Your task to perform on an android device: open app "Duolingo: language lessons" (install if not already installed) and enter user name: "omens@gmail.com" and password: "casks" Image 0: 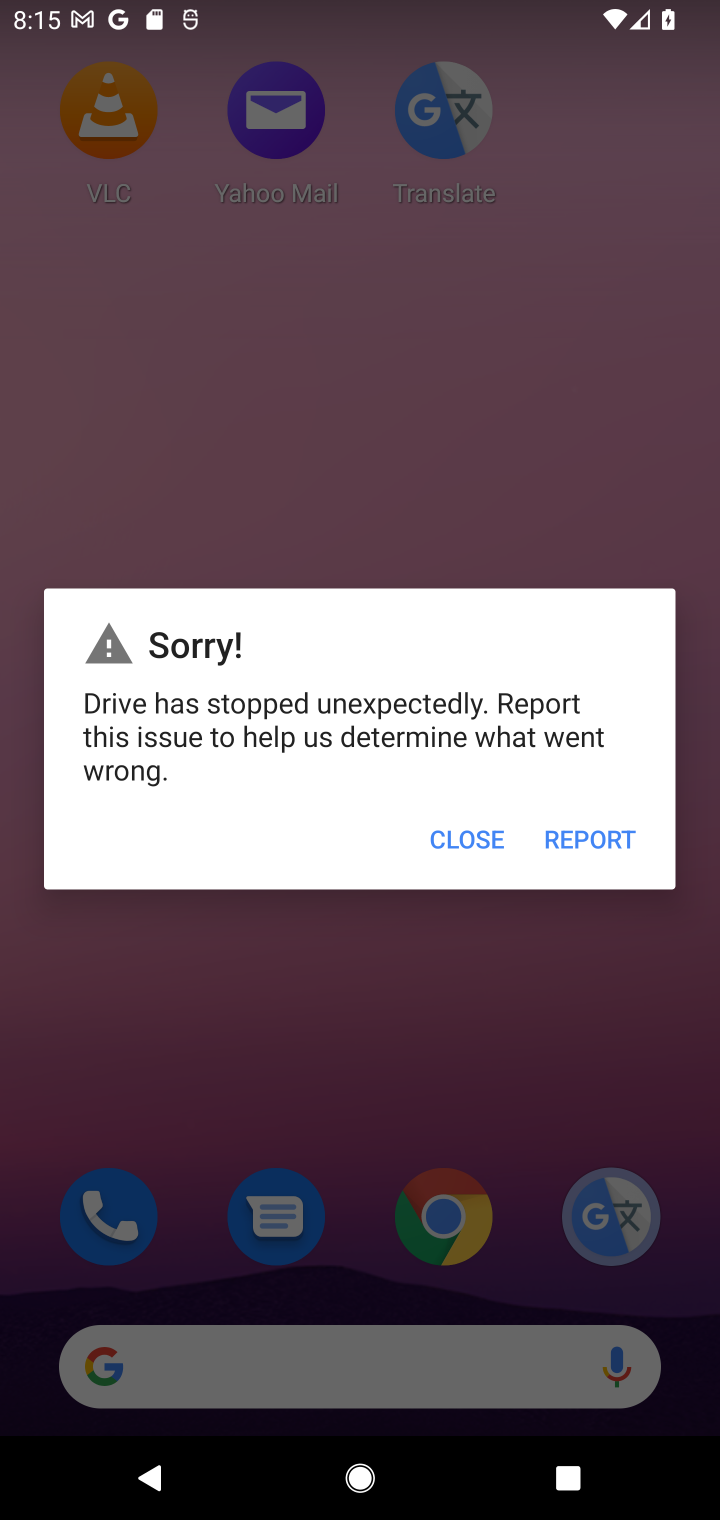
Step 0: press home button
Your task to perform on an android device: open app "Duolingo: language lessons" (install if not already installed) and enter user name: "omens@gmail.com" and password: "casks" Image 1: 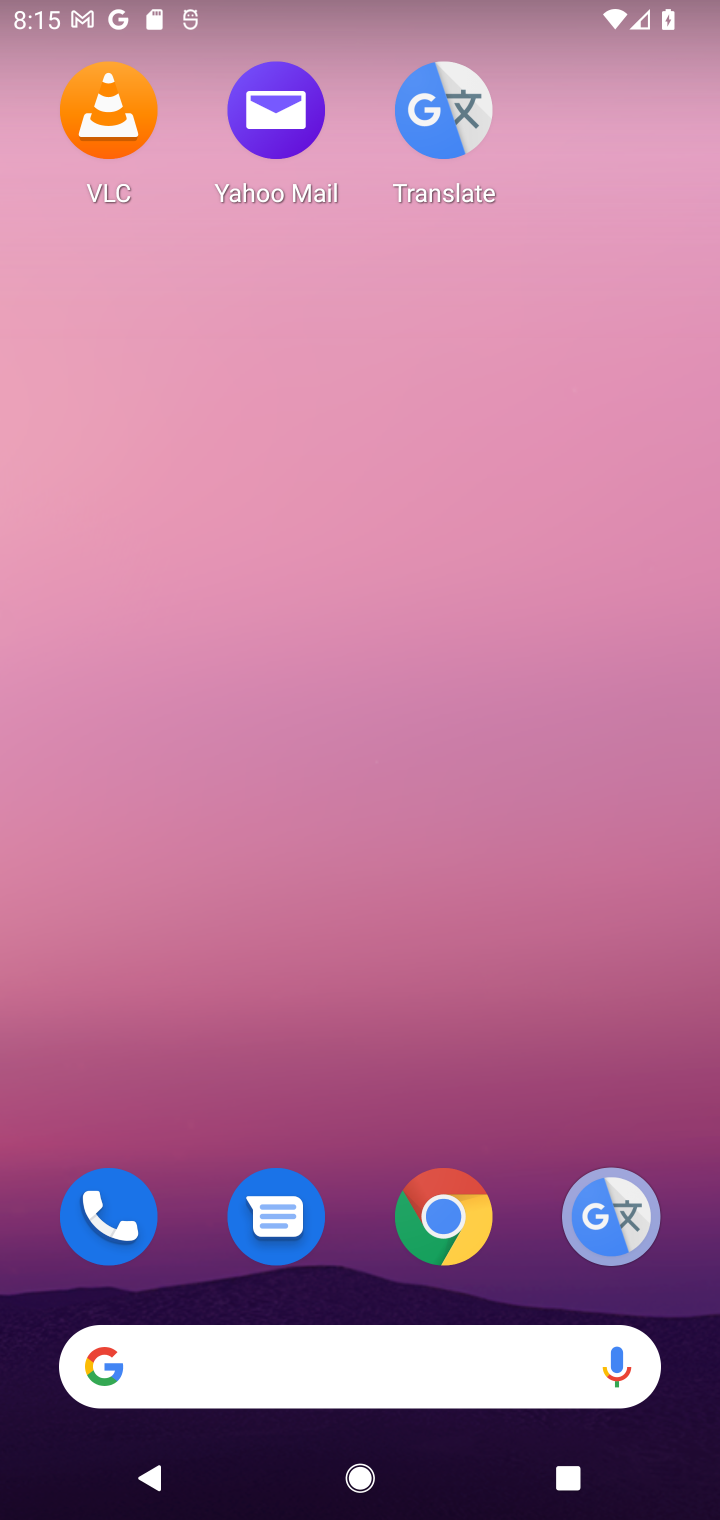
Step 1: press home button
Your task to perform on an android device: open app "Duolingo: language lessons" (install if not already installed) and enter user name: "omens@gmail.com" and password: "casks" Image 2: 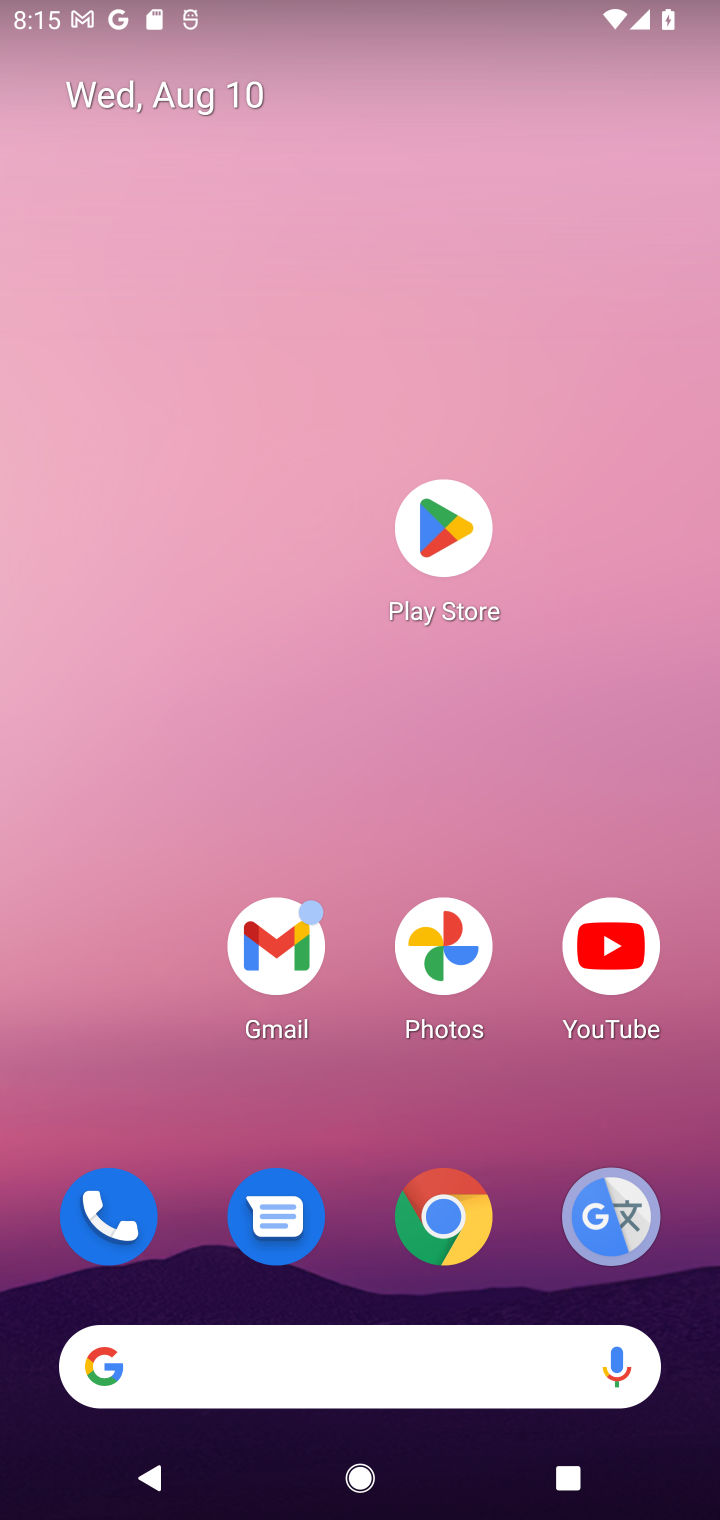
Step 2: click (442, 527)
Your task to perform on an android device: open app "Duolingo: language lessons" (install if not already installed) and enter user name: "omens@gmail.com" and password: "casks" Image 3: 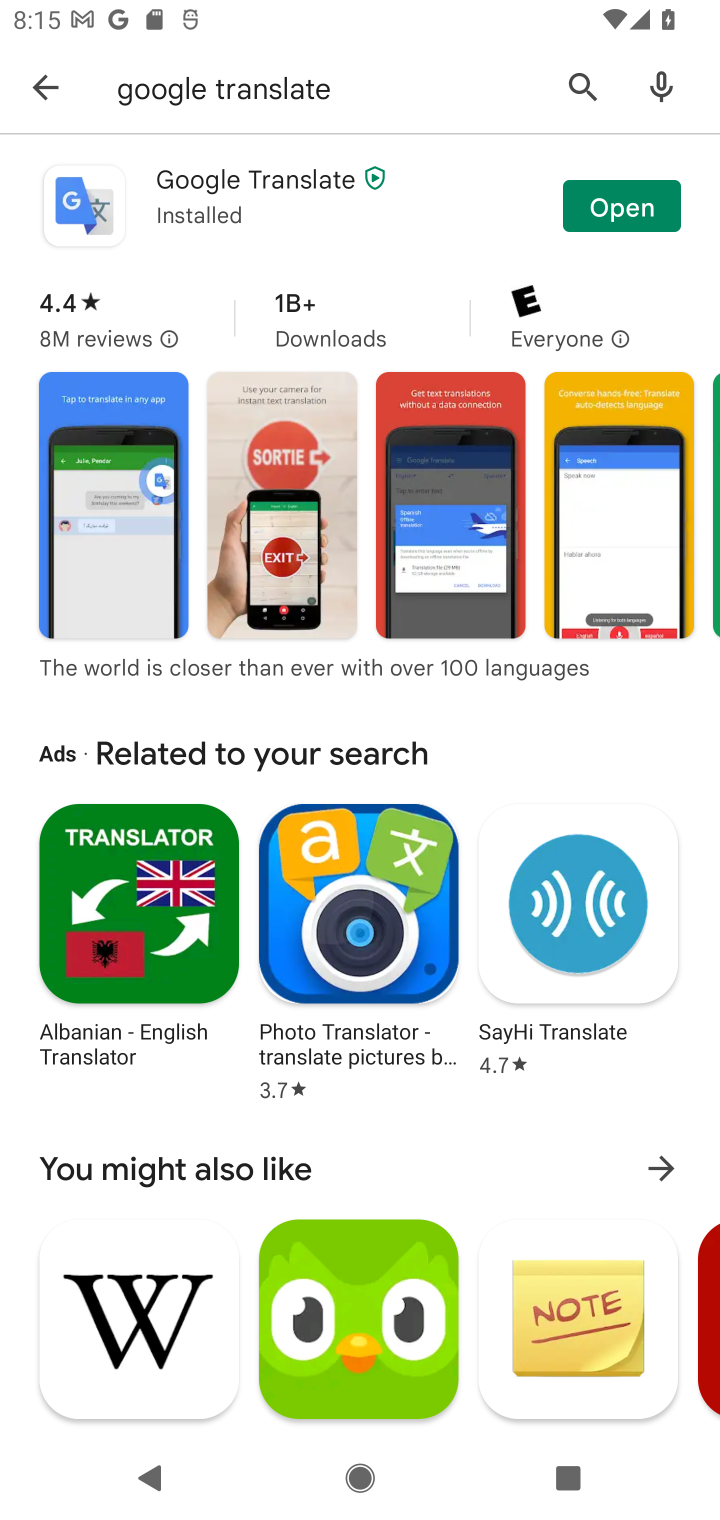
Step 3: click (574, 85)
Your task to perform on an android device: open app "Duolingo: language lessons" (install if not already installed) and enter user name: "omens@gmail.com" and password: "casks" Image 4: 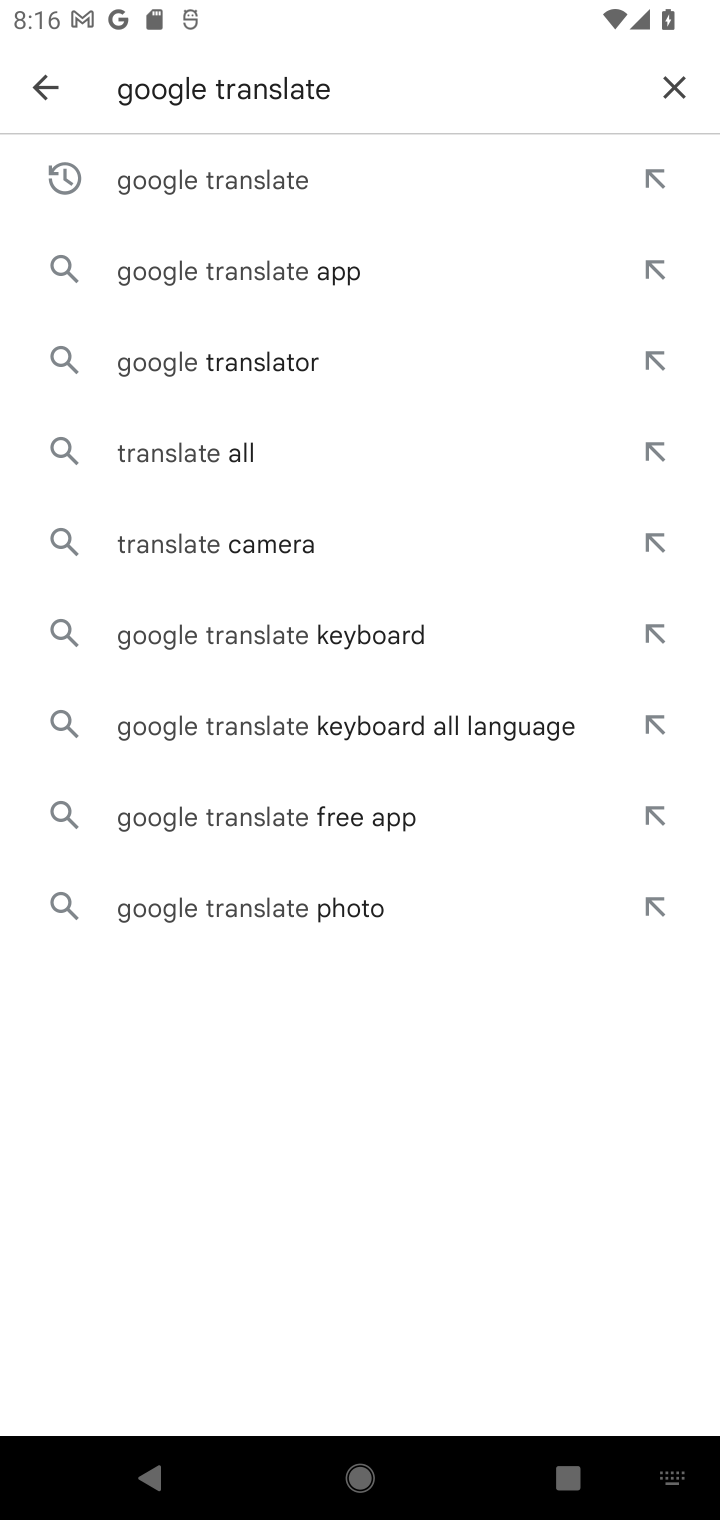
Step 4: click (675, 79)
Your task to perform on an android device: open app "Duolingo: language lessons" (install if not already installed) and enter user name: "omens@gmail.com" and password: "casks" Image 5: 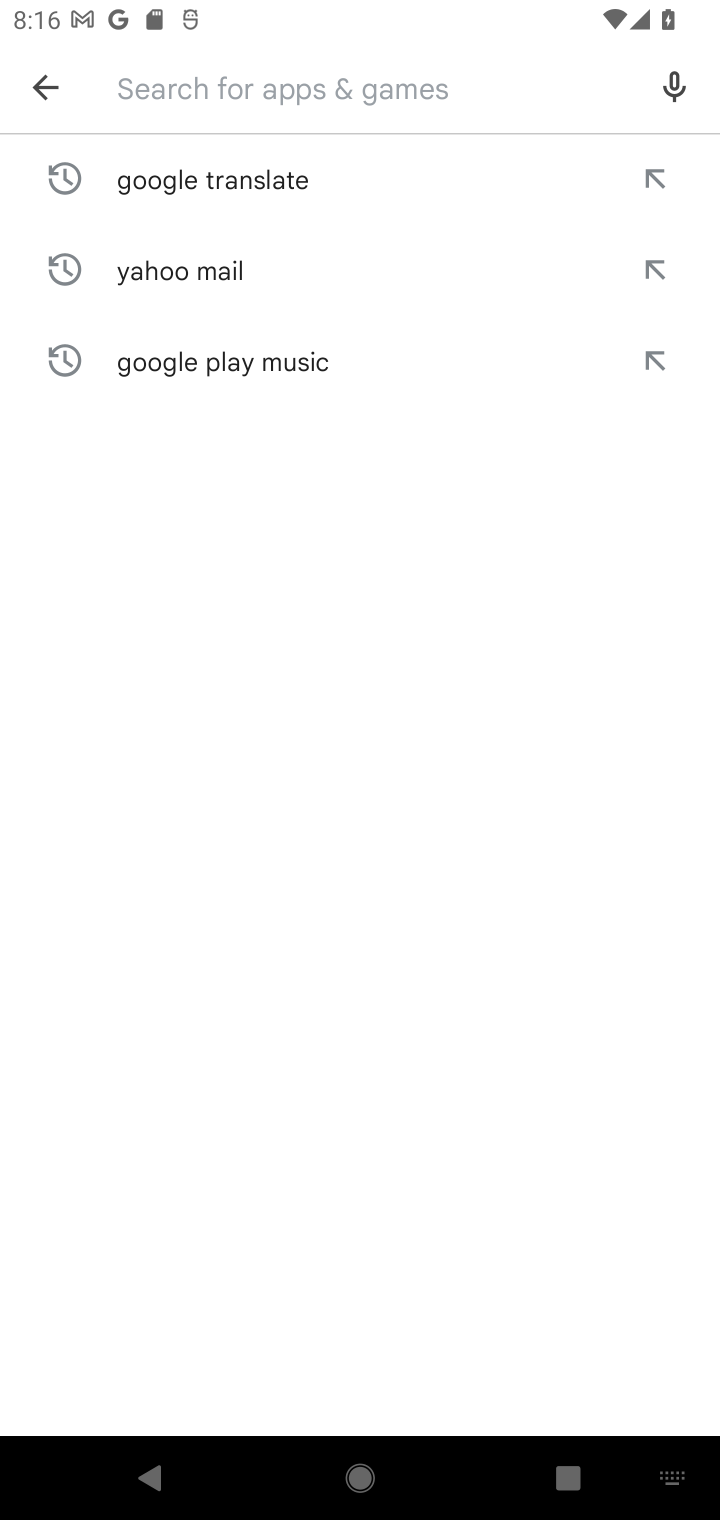
Step 5: type "Duolingo: language lessons"
Your task to perform on an android device: open app "Duolingo: language lessons" (install if not already installed) and enter user name: "omens@gmail.com" and password: "casks" Image 6: 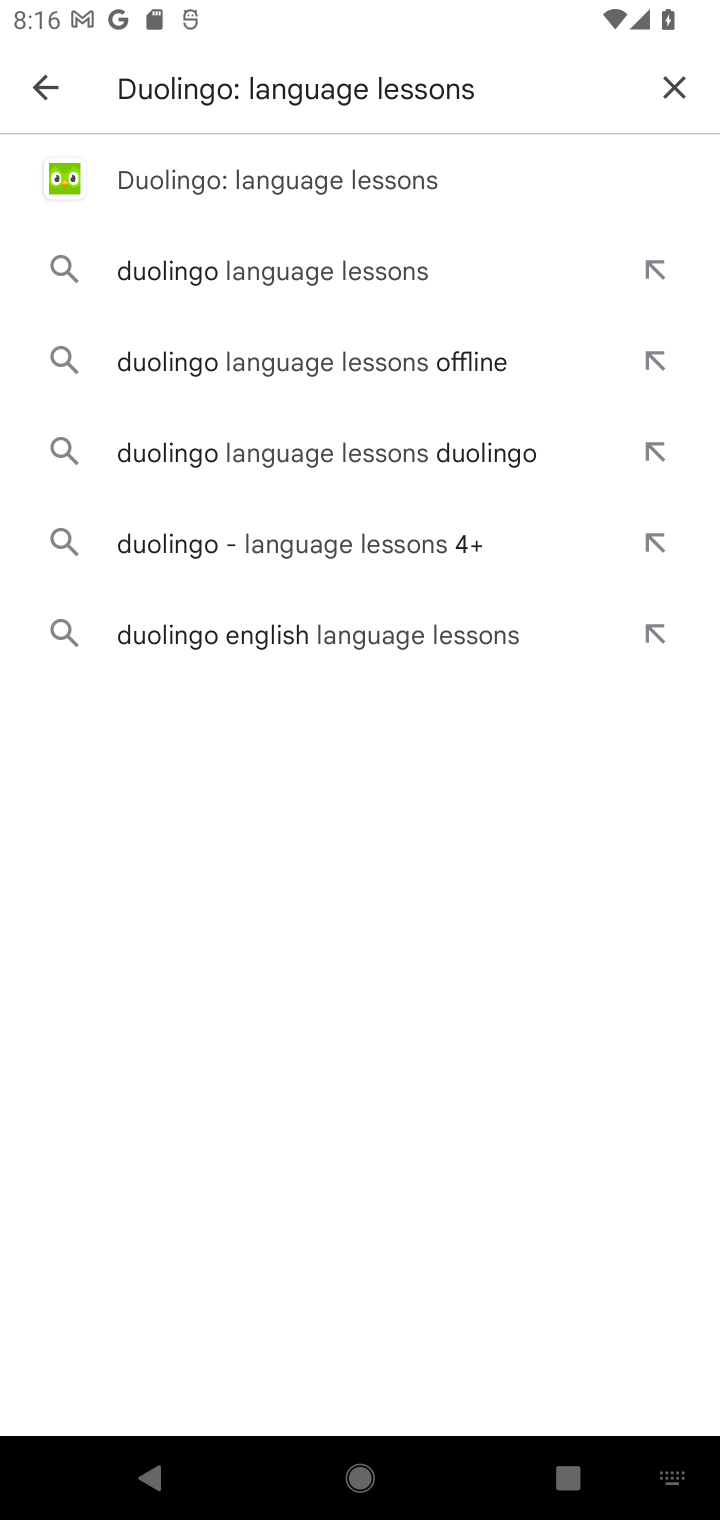
Step 6: click (373, 185)
Your task to perform on an android device: open app "Duolingo: language lessons" (install if not already installed) and enter user name: "omens@gmail.com" and password: "casks" Image 7: 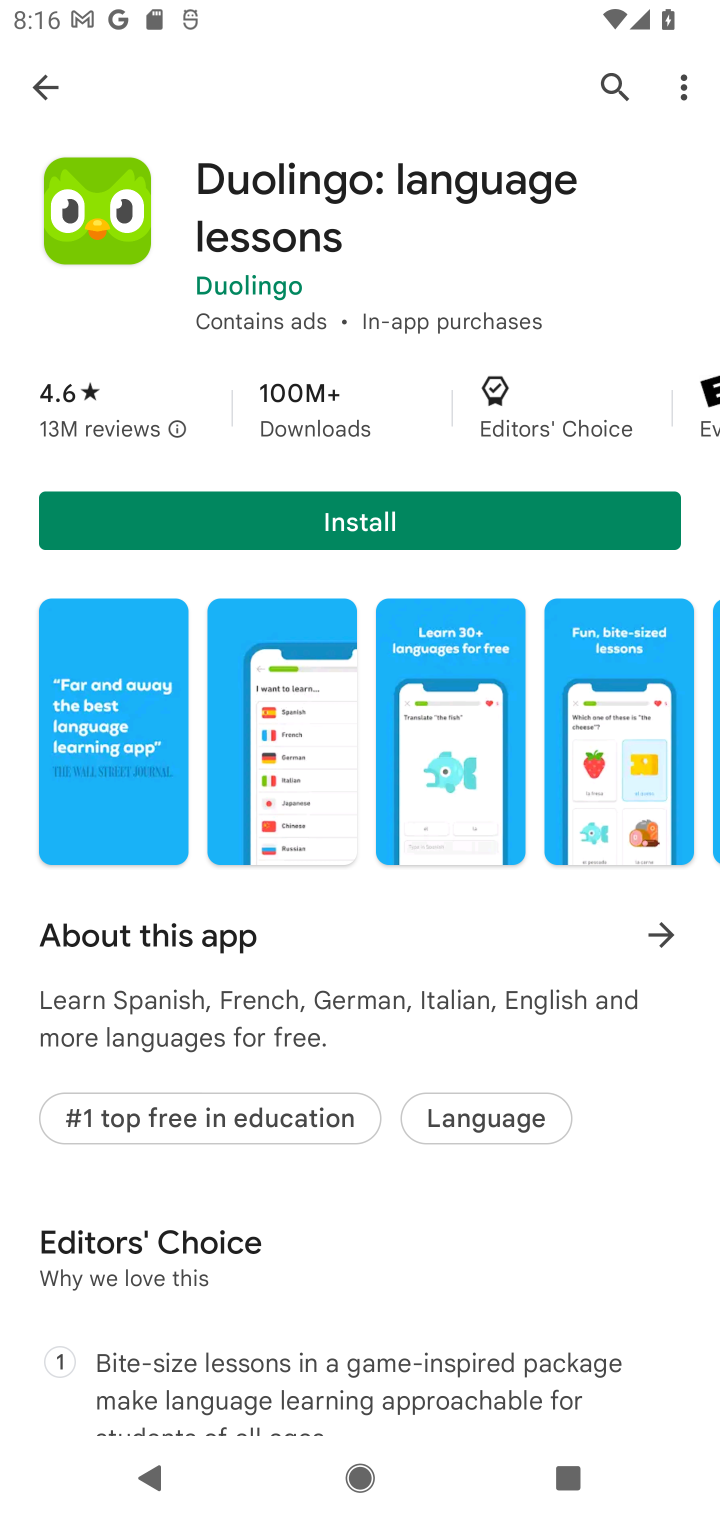
Step 7: click (350, 521)
Your task to perform on an android device: open app "Duolingo: language lessons" (install if not already installed) and enter user name: "omens@gmail.com" and password: "casks" Image 8: 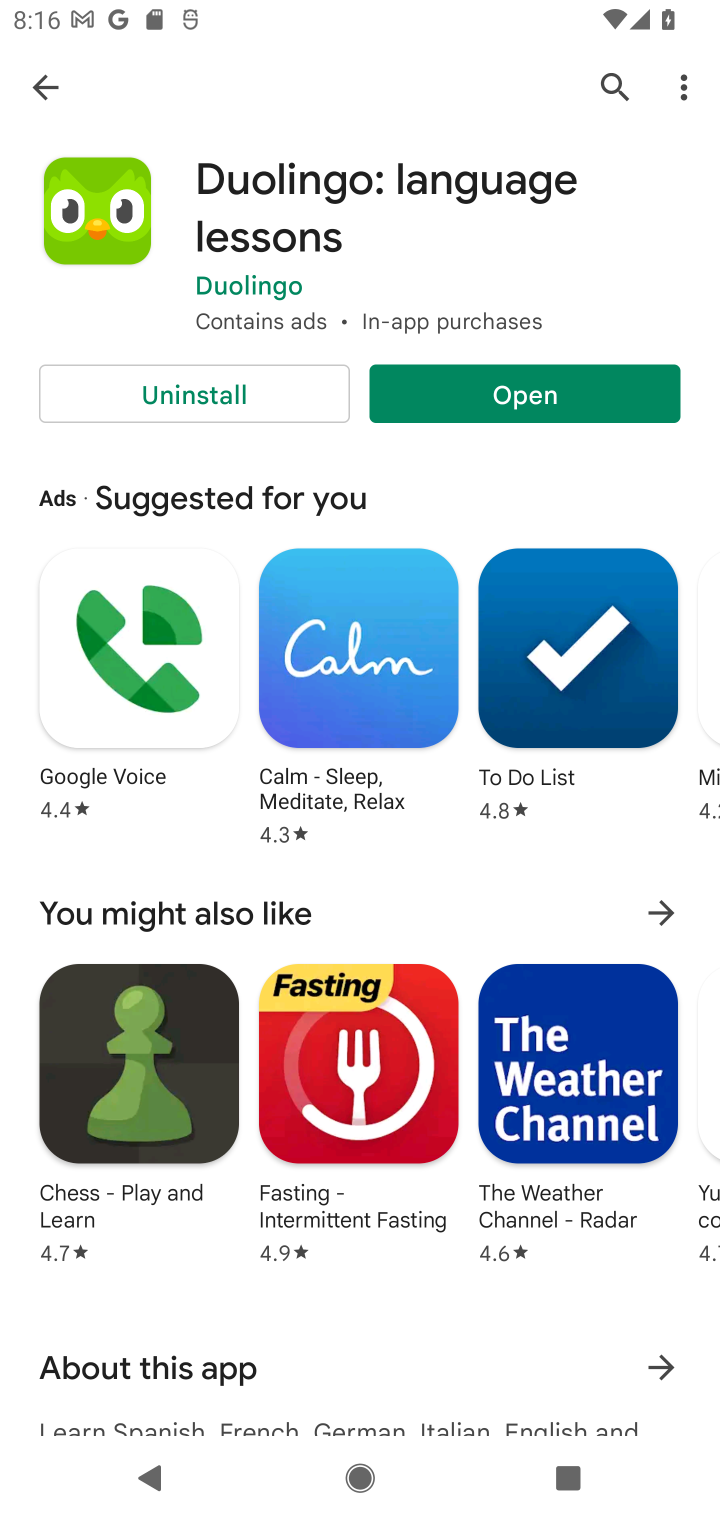
Step 8: click (563, 416)
Your task to perform on an android device: open app "Duolingo: language lessons" (install if not already installed) and enter user name: "omens@gmail.com" and password: "casks" Image 9: 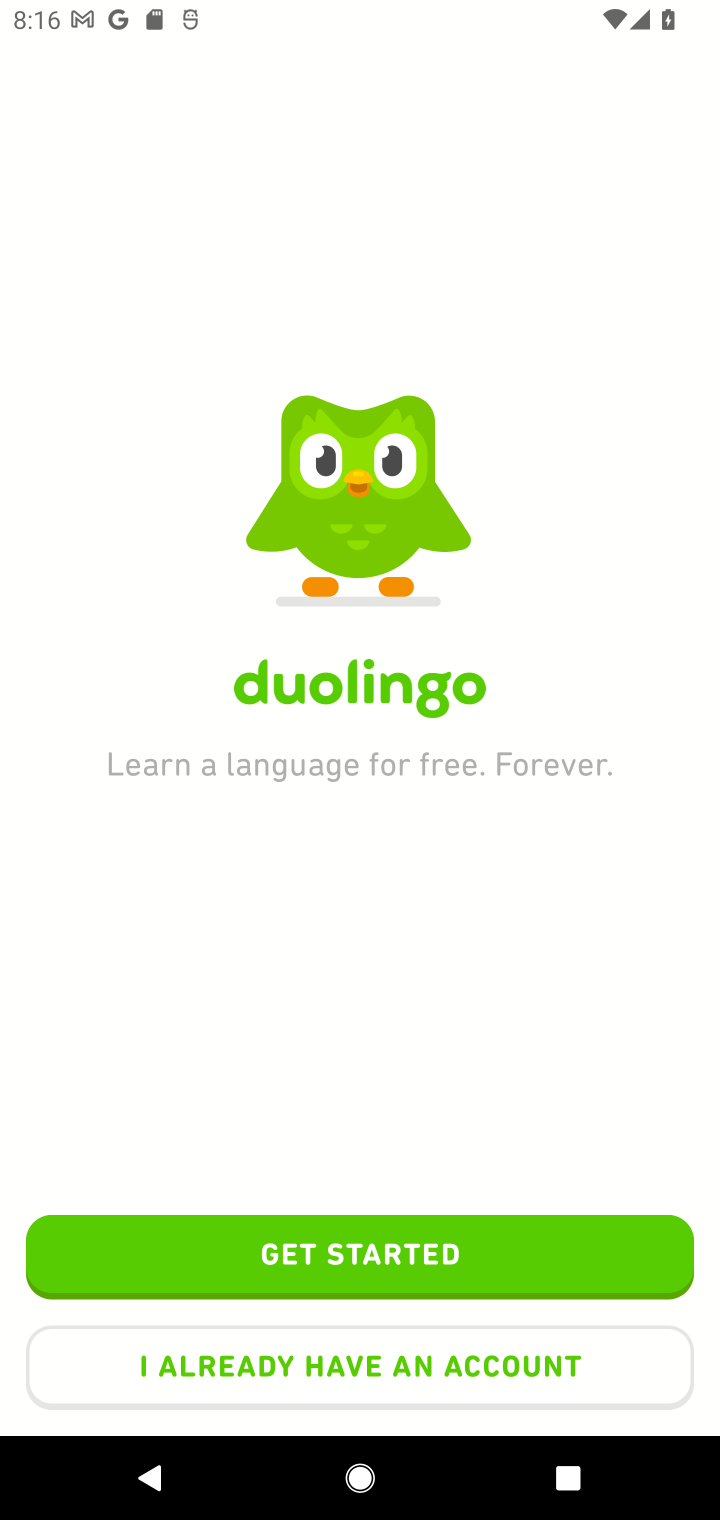
Step 9: click (392, 1363)
Your task to perform on an android device: open app "Duolingo: language lessons" (install if not already installed) and enter user name: "omens@gmail.com" and password: "casks" Image 10: 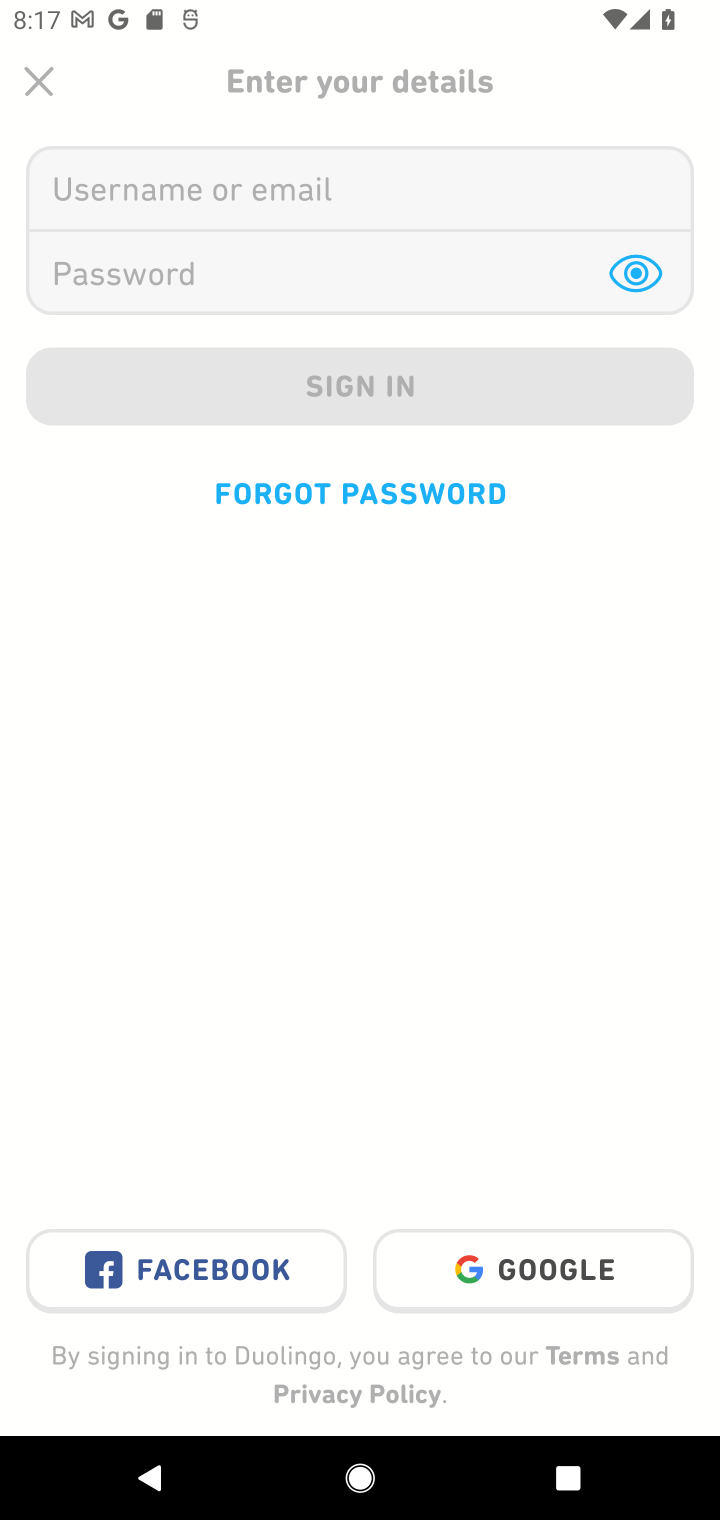
Step 10: click (234, 184)
Your task to perform on an android device: open app "Duolingo: language lessons" (install if not already installed) and enter user name: "omens@gmail.com" and password: "casks" Image 11: 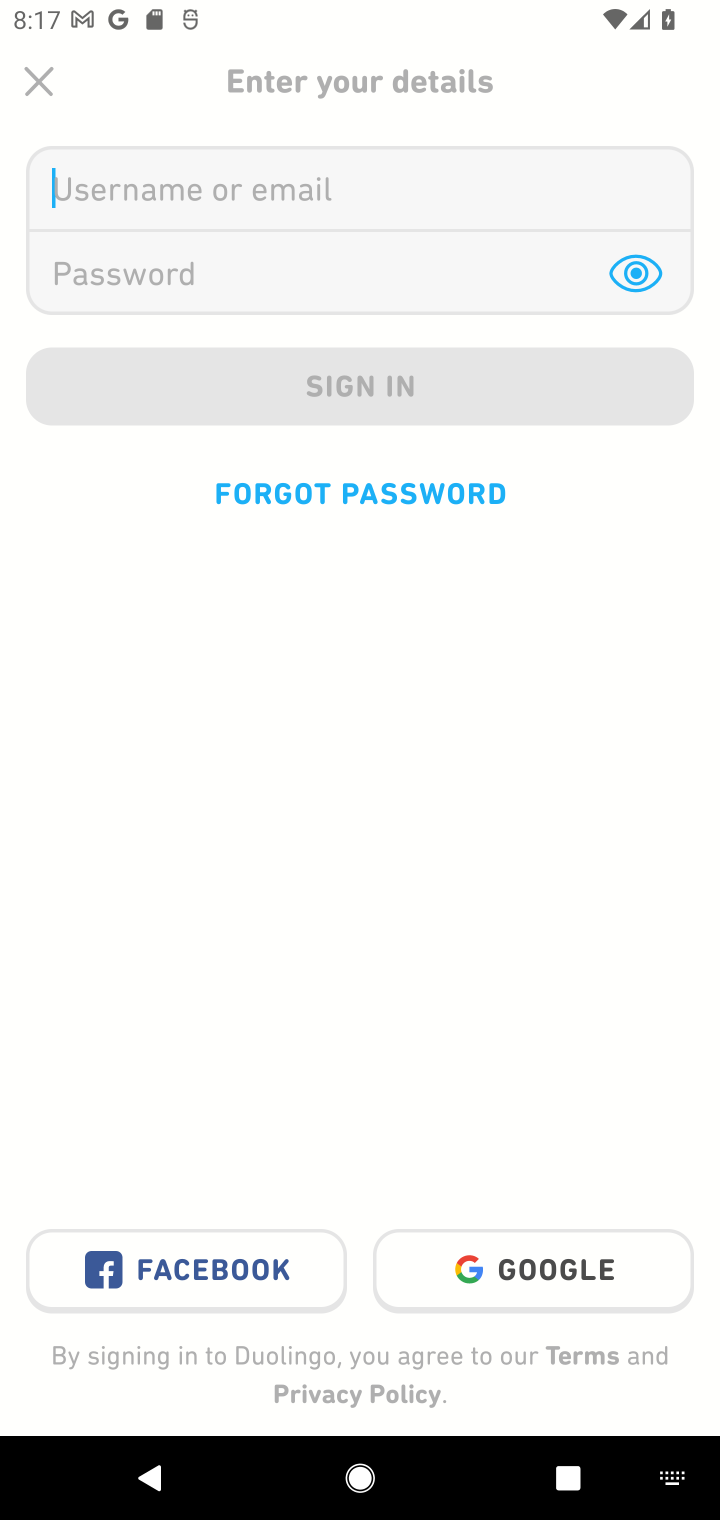
Step 11: type "omens@gmail.com"
Your task to perform on an android device: open app "Duolingo: language lessons" (install if not already installed) and enter user name: "omens@gmail.com" and password: "casks" Image 12: 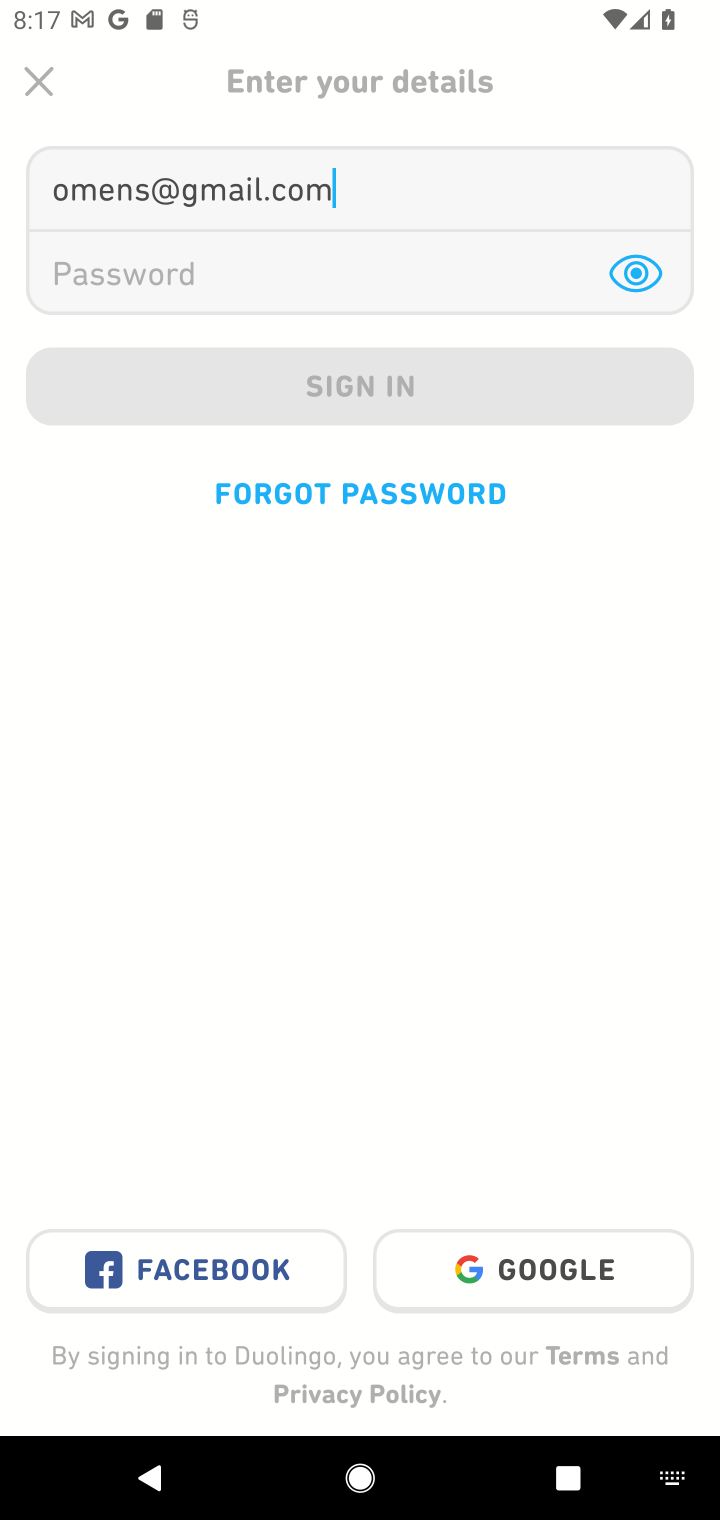
Step 12: click (272, 270)
Your task to perform on an android device: open app "Duolingo: language lessons" (install if not already installed) and enter user name: "omens@gmail.com" and password: "casks" Image 13: 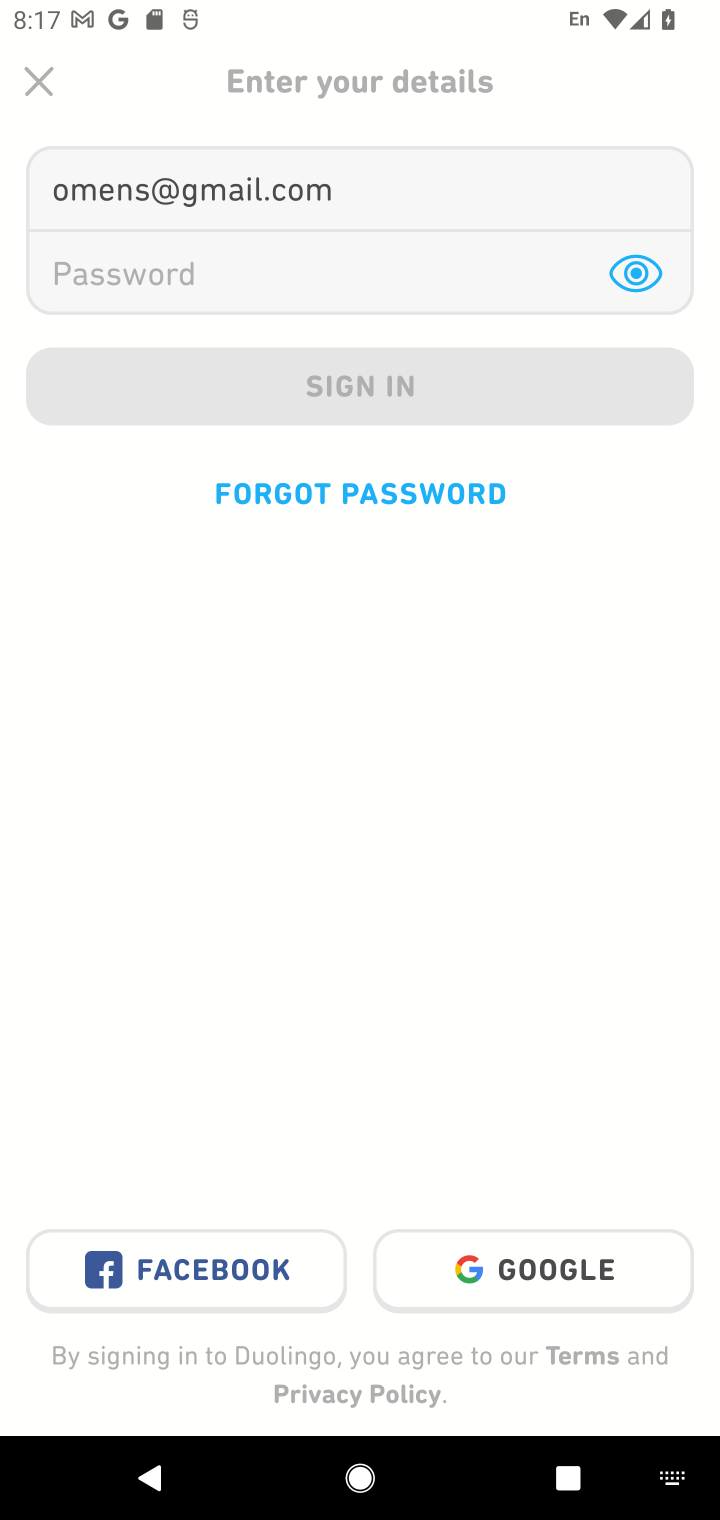
Step 13: type "casks"
Your task to perform on an android device: open app "Duolingo: language lessons" (install if not already installed) and enter user name: "omens@gmail.com" and password: "casks" Image 14: 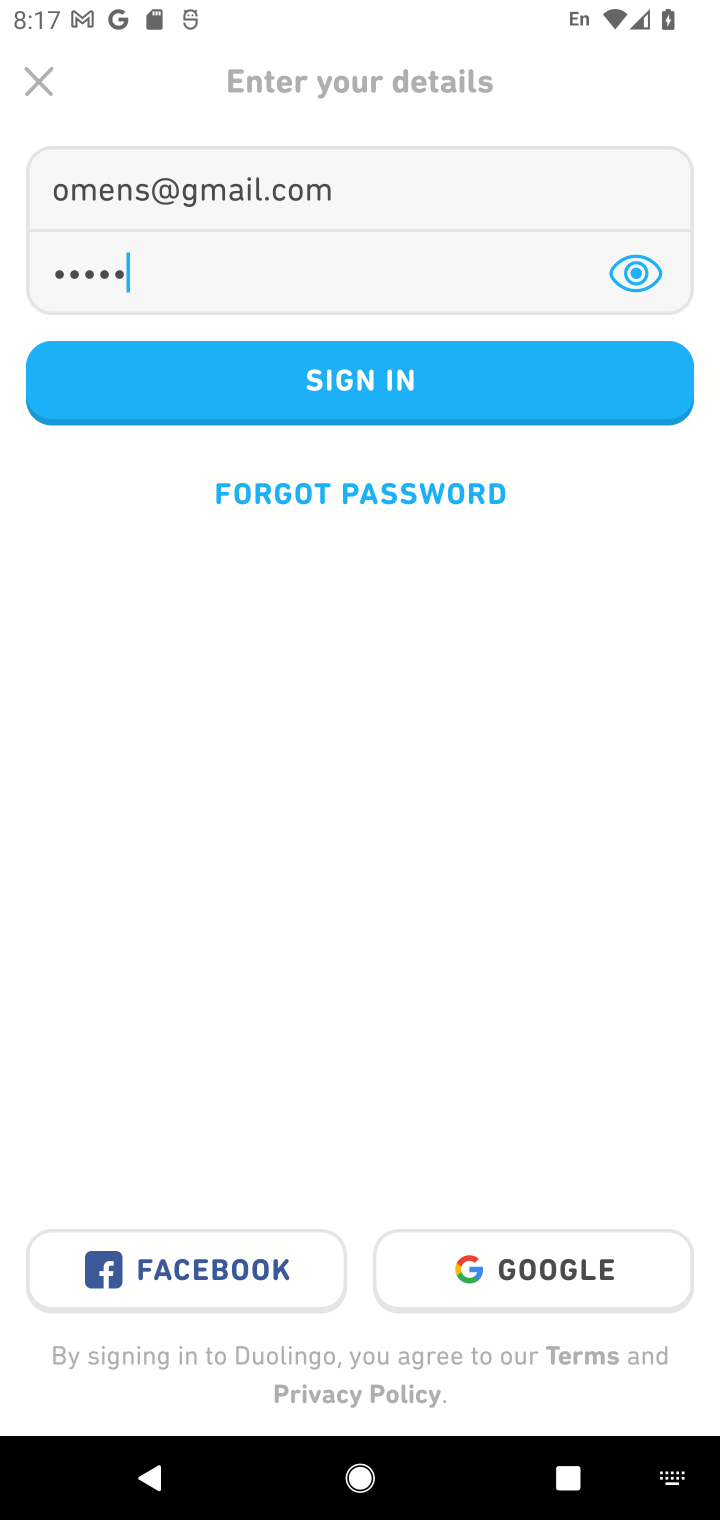
Step 14: task complete